Your task to perform on an android device: Play the last video I watched on Youtube Image 0: 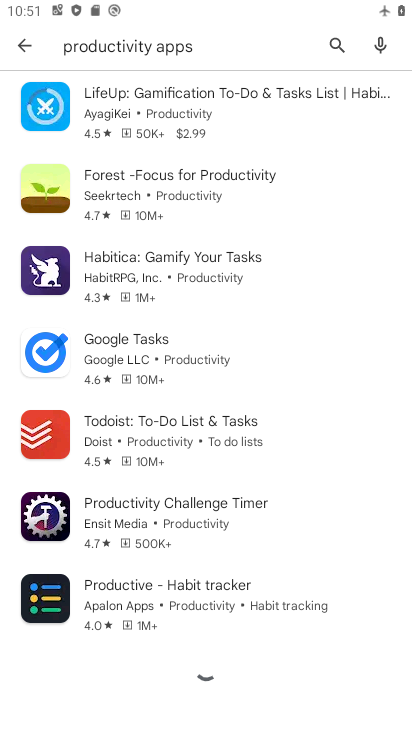
Step 0: press home button
Your task to perform on an android device: Play the last video I watched on Youtube Image 1: 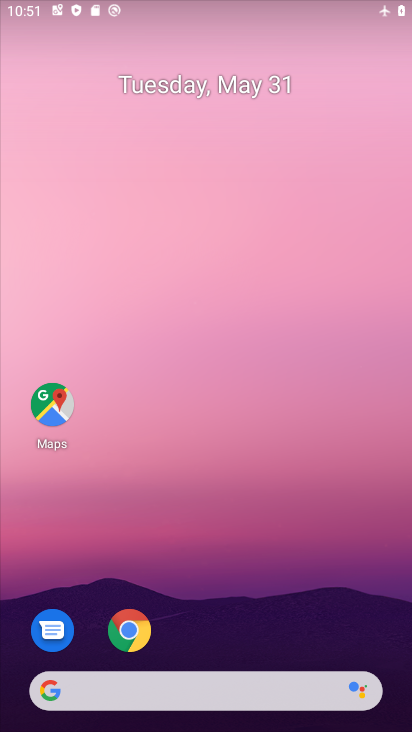
Step 1: drag from (246, 649) to (192, 199)
Your task to perform on an android device: Play the last video I watched on Youtube Image 2: 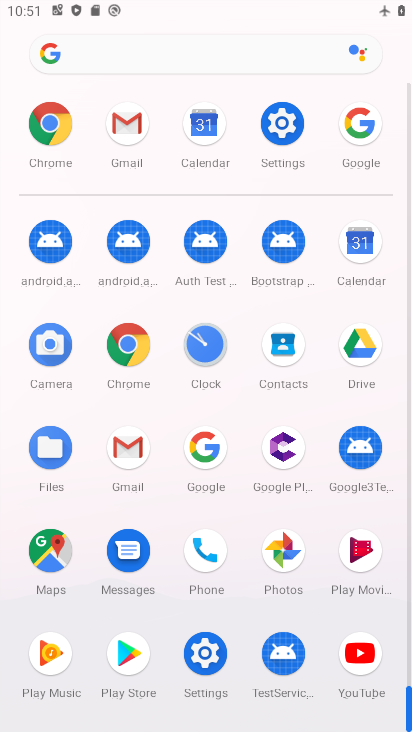
Step 2: drag from (235, 535) to (221, 286)
Your task to perform on an android device: Play the last video I watched on Youtube Image 3: 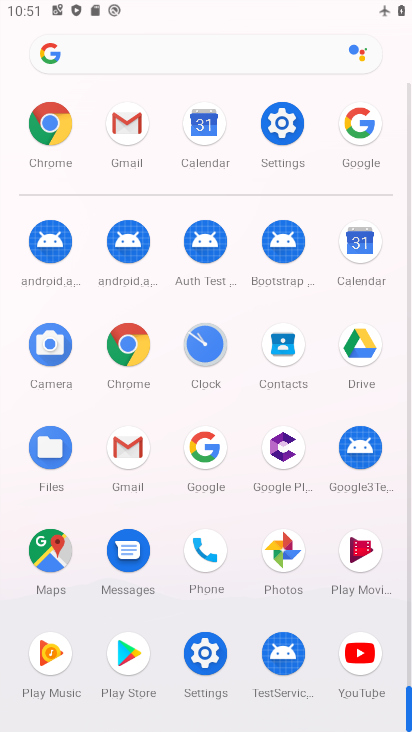
Step 3: click (358, 655)
Your task to perform on an android device: Play the last video I watched on Youtube Image 4: 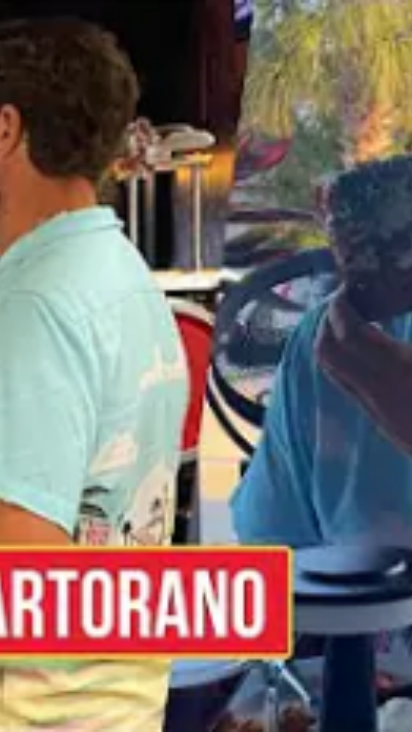
Step 4: task complete